Your task to perform on an android device: What's the news this week? Image 0: 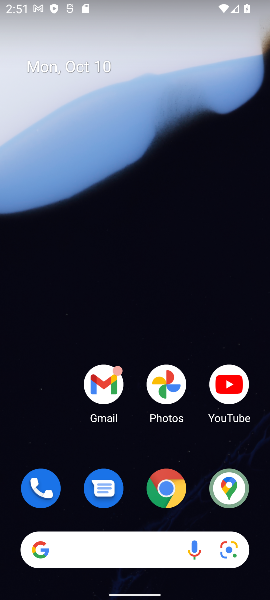
Step 0: click (104, 538)
Your task to perform on an android device: What's the news this week? Image 1: 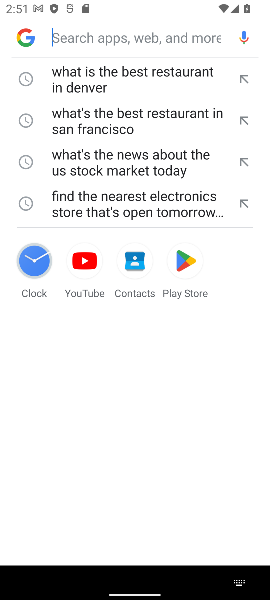
Step 1: type "What's the news this week"
Your task to perform on an android device: What's the news this week? Image 2: 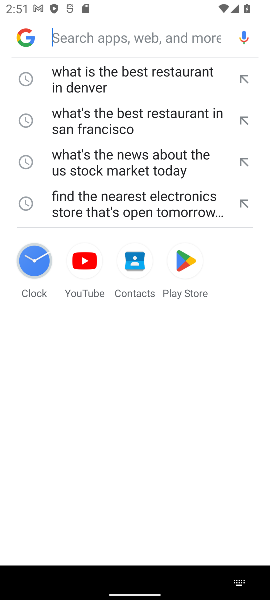
Step 2: click (125, 400)
Your task to perform on an android device: What's the news this week? Image 3: 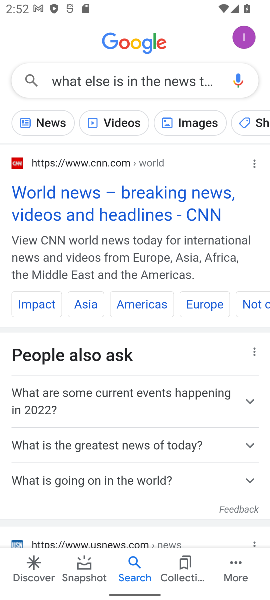
Step 3: task complete